Your task to perform on an android device: change text size in settings app Image 0: 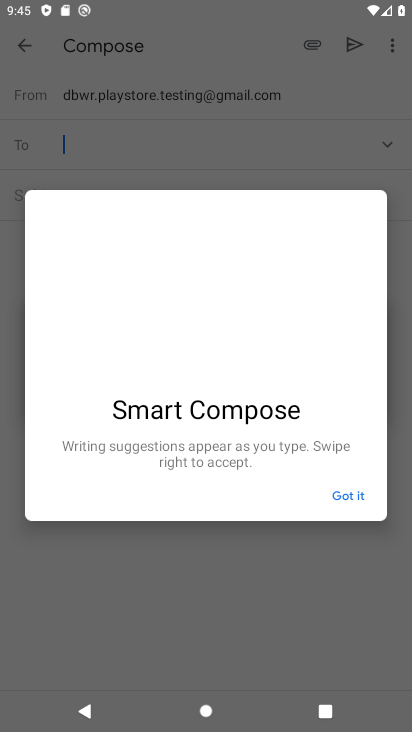
Step 0: click (240, 625)
Your task to perform on an android device: change text size in settings app Image 1: 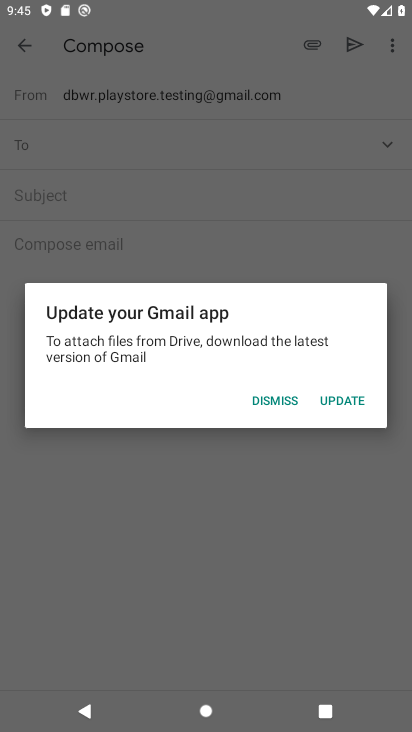
Step 1: press home button
Your task to perform on an android device: change text size in settings app Image 2: 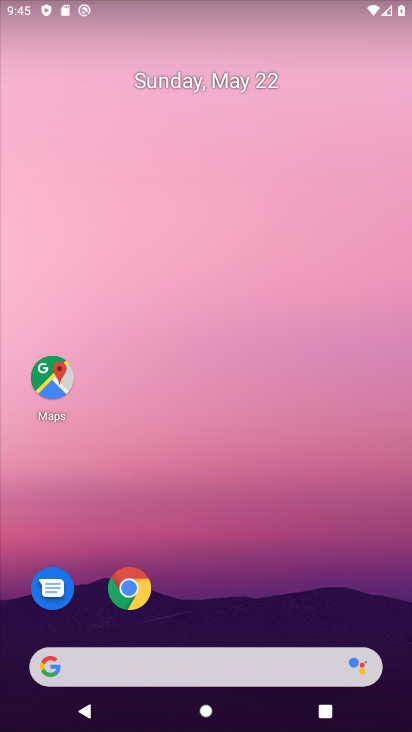
Step 2: drag from (222, 612) to (207, 96)
Your task to perform on an android device: change text size in settings app Image 3: 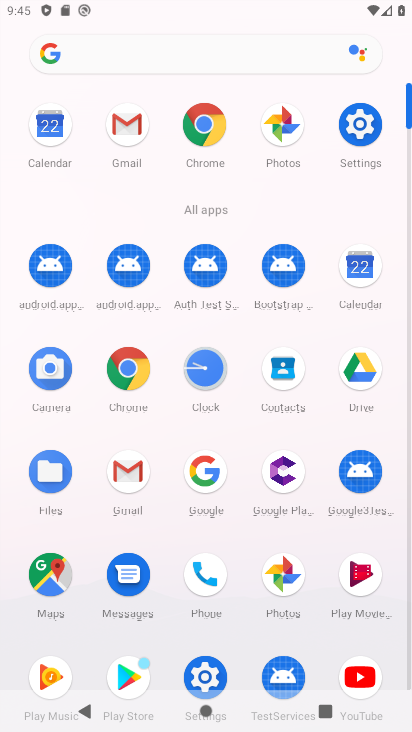
Step 3: click (368, 124)
Your task to perform on an android device: change text size in settings app Image 4: 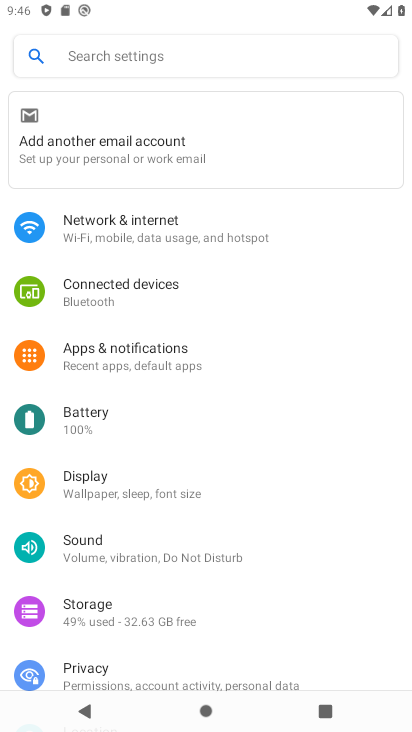
Step 4: click (235, 496)
Your task to perform on an android device: change text size in settings app Image 5: 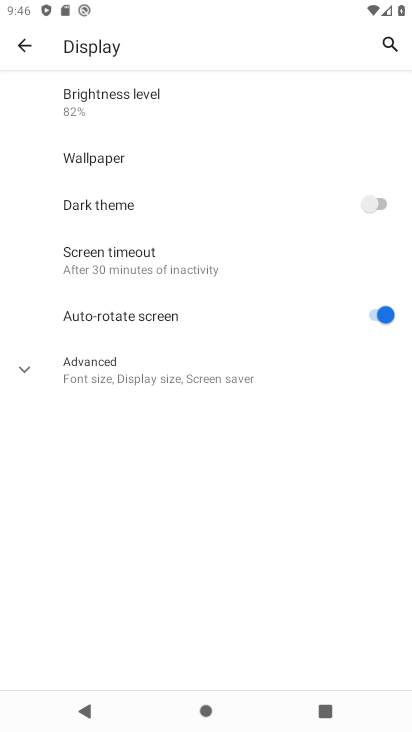
Step 5: click (213, 375)
Your task to perform on an android device: change text size in settings app Image 6: 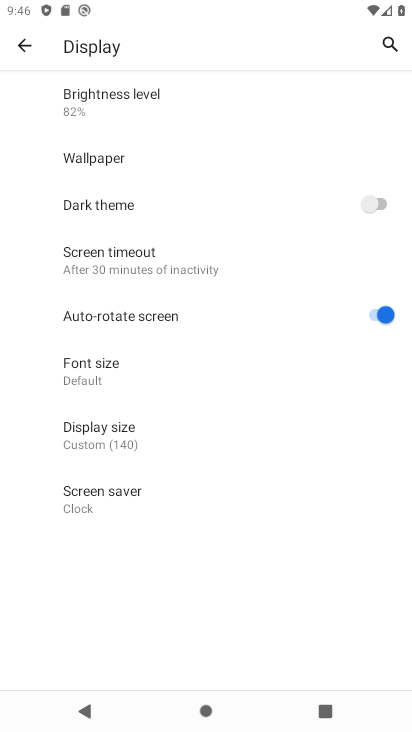
Step 6: click (212, 375)
Your task to perform on an android device: change text size in settings app Image 7: 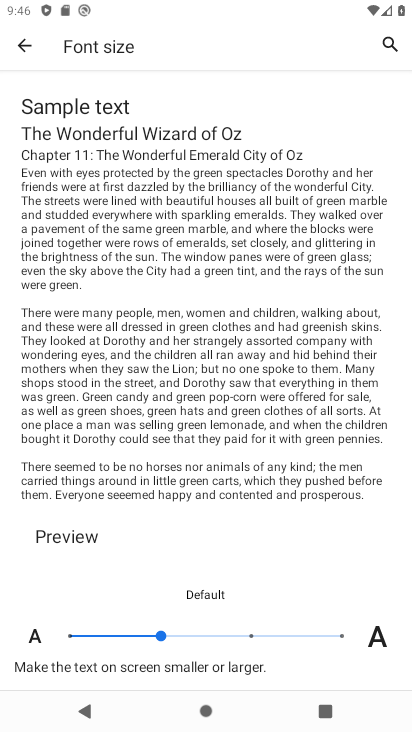
Step 7: click (195, 625)
Your task to perform on an android device: change text size in settings app Image 8: 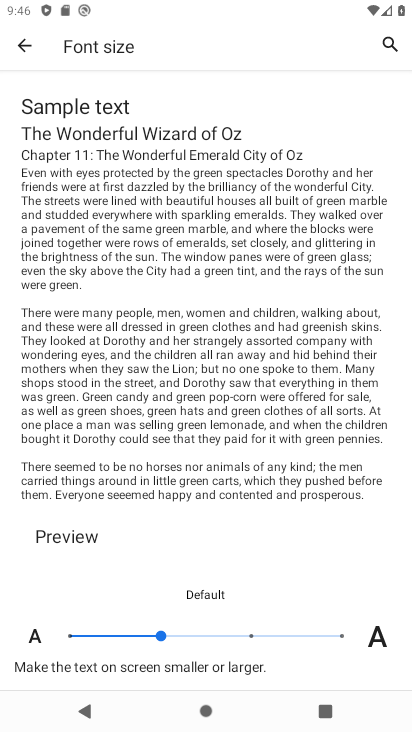
Step 8: click (202, 635)
Your task to perform on an android device: change text size in settings app Image 9: 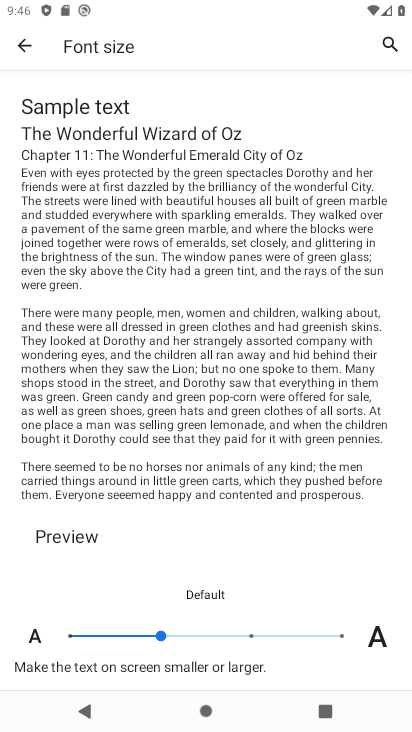
Step 9: click (255, 635)
Your task to perform on an android device: change text size in settings app Image 10: 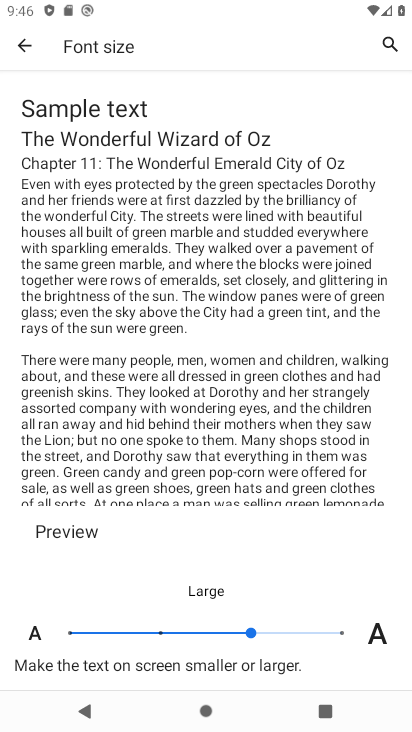
Step 10: task complete